Your task to perform on an android device: turn off notifications settings in the gmail app Image 0: 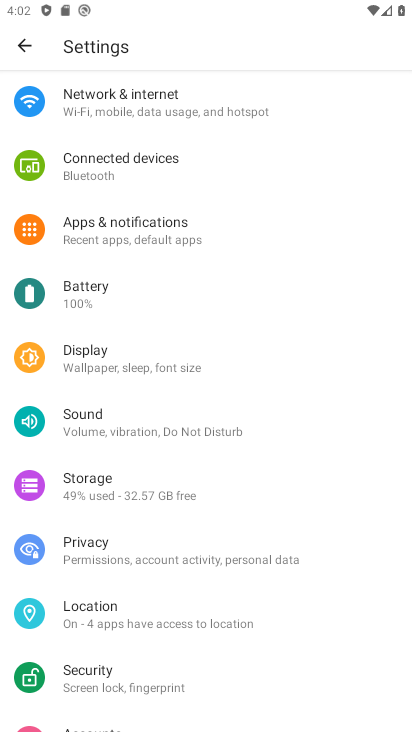
Step 0: click (115, 245)
Your task to perform on an android device: turn off notifications settings in the gmail app Image 1: 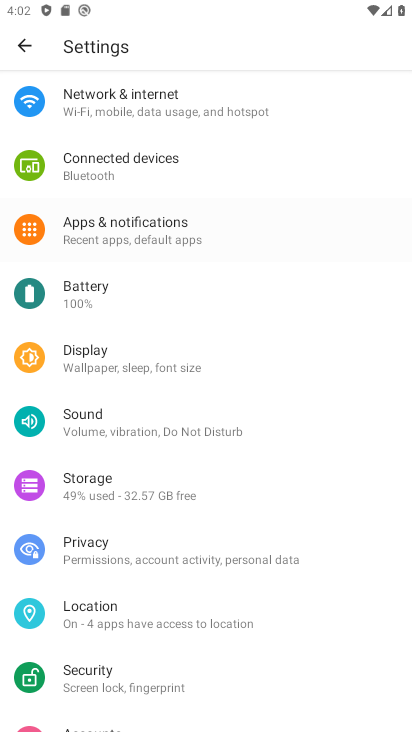
Step 1: click (118, 244)
Your task to perform on an android device: turn off notifications settings in the gmail app Image 2: 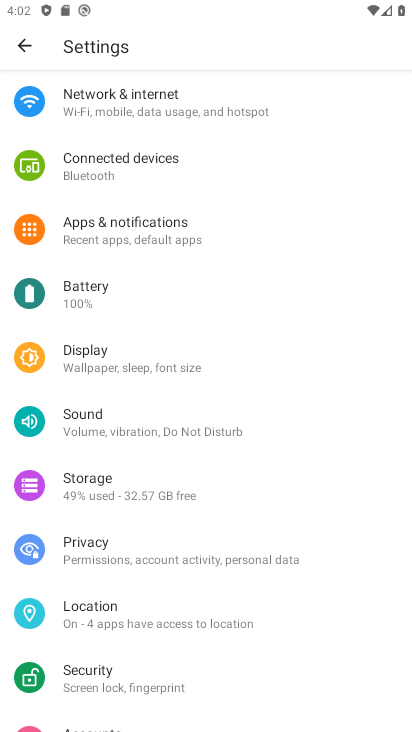
Step 2: click (118, 244)
Your task to perform on an android device: turn off notifications settings in the gmail app Image 3: 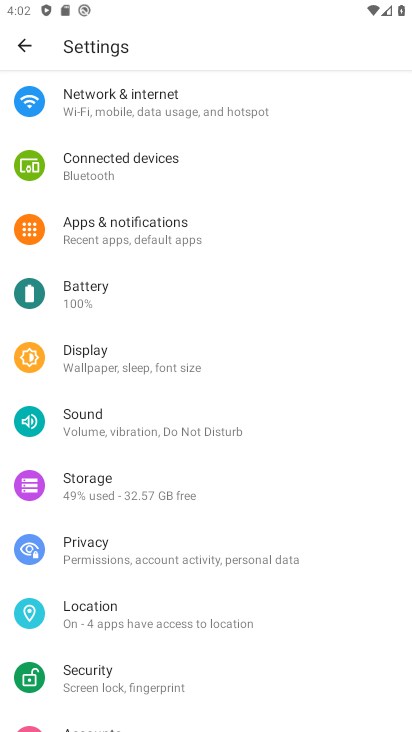
Step 3: click (118, 244)
Your task to perform on an android device: turn off notifications settings in the gmail app Image 4: 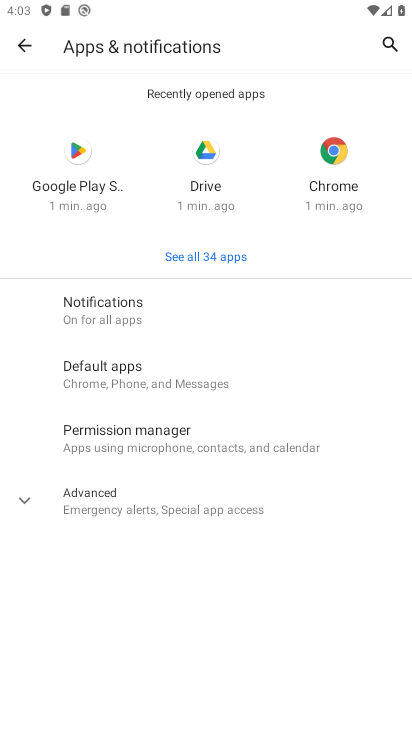
Step 4: click (84, 309)
Your task to perform on an android device: turn off notifications settings in the gmail app Image 5: 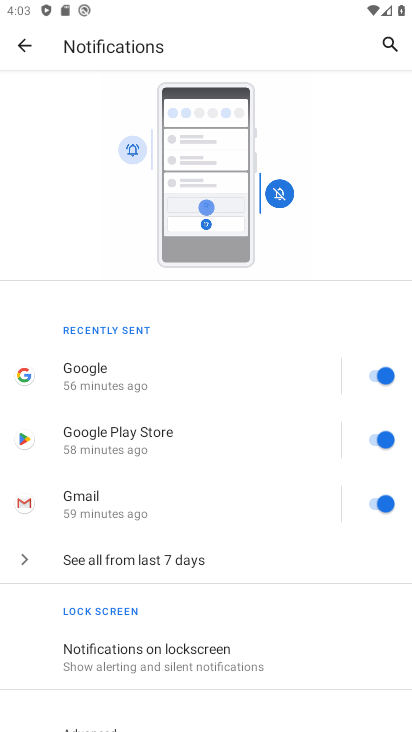
Step 5: drag from (121, 581) to (130, 276)
Your task to perform on an android device: turn off notifications settings in the gmail app Image 6: 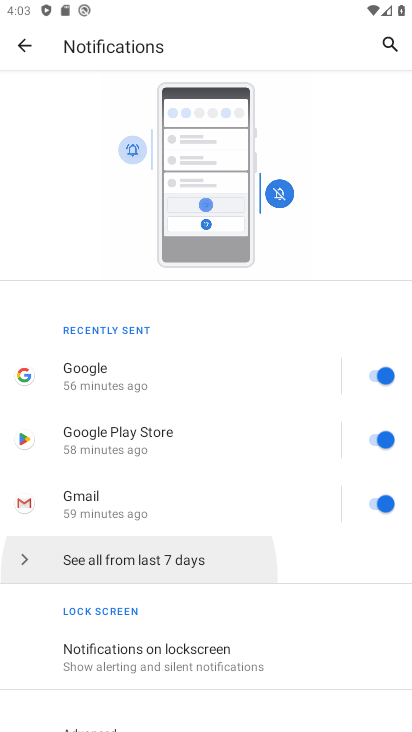
Step 6: drag from (148, 510) to (139, 250)
Your task to perform on an android device: turn off notifications settings in the gmail app Image 7: 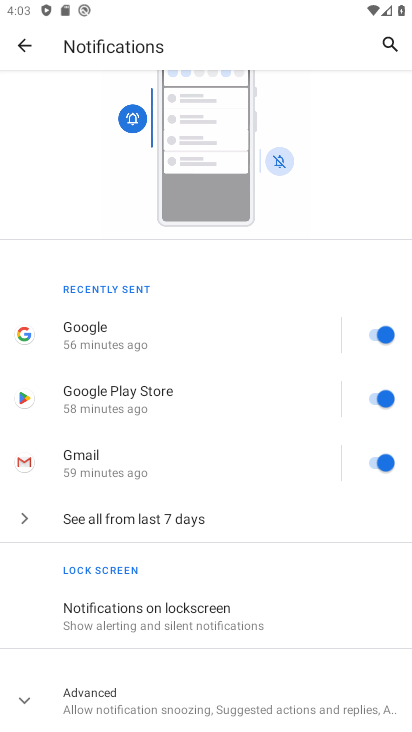
Step 7: drag from (193, 503) to (180, 298)
Your task to perform on an android device: turn off notifications settings in the gmail app Image 8: 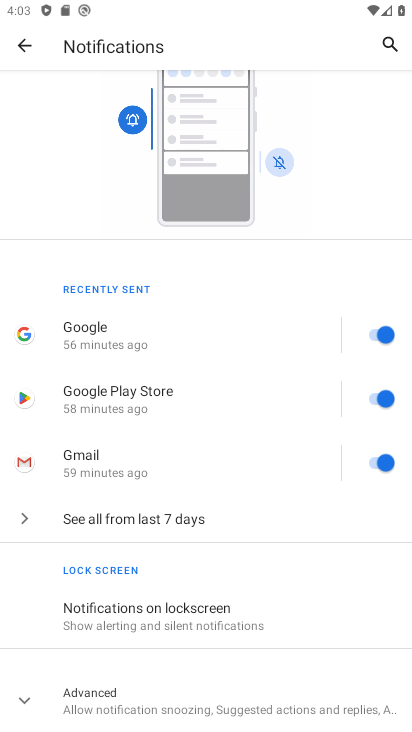
Step 8: click (168, 327)
Your task to perform on an android device: turn off notifications settings in the gmail app Image 9: 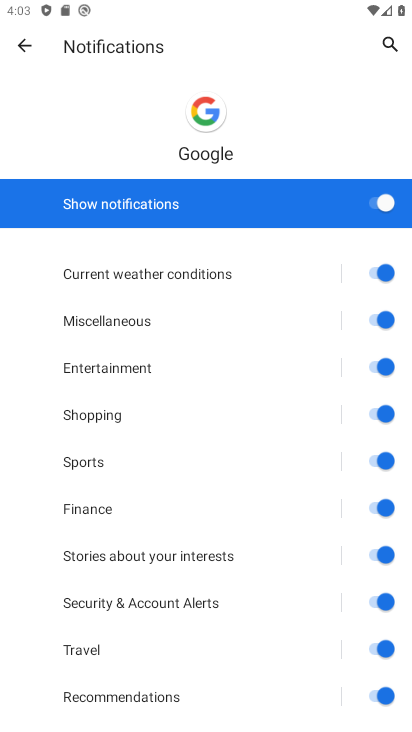
Step 9: click (394, 207)
Your task to perform on an android device: turn off notifications settings in the gmail app Image 10: 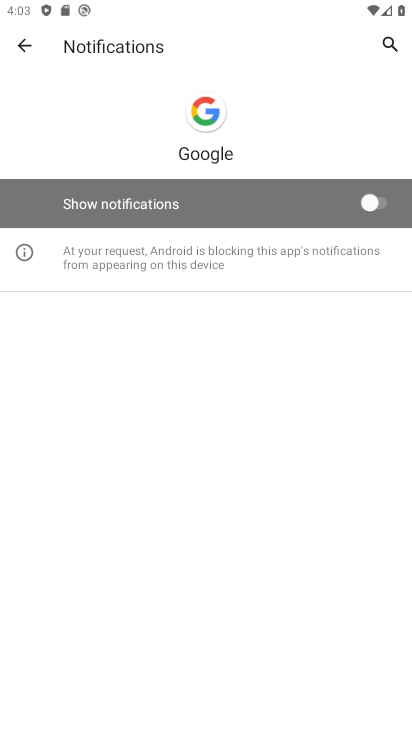
Step 10: click (26, 50)
Your task to perform on an android device: turn off notifications settings in the gmail app Image 11: 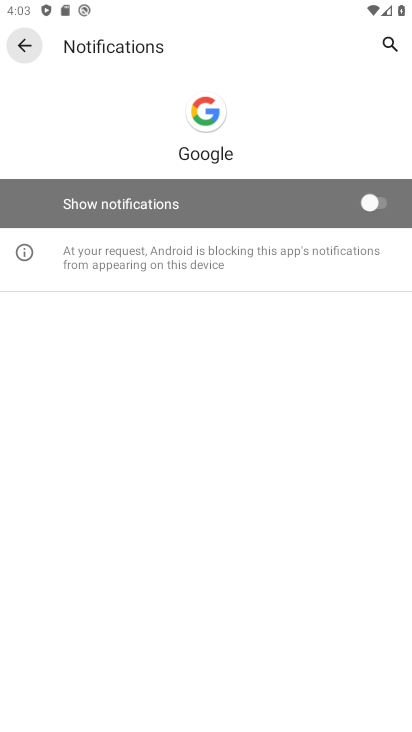
Step 11: click (31, 48)
Your task to perform on an android device: turn off notifications settings in the gmail app Image 12: 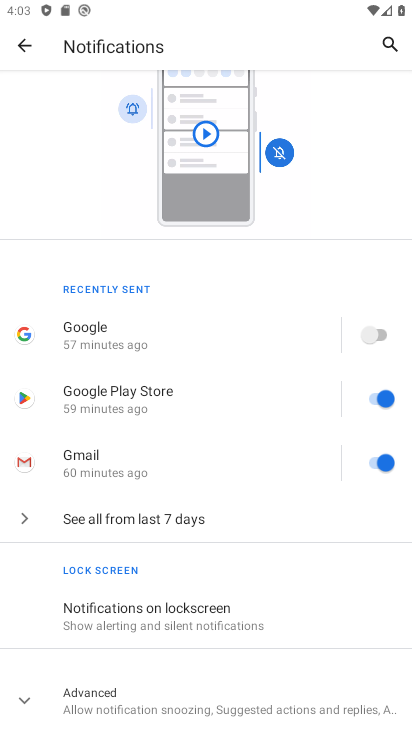
Step 12: click (21, 48)
Your task to perform on an android device: turn off notifications settings in the gmail app Image 13: 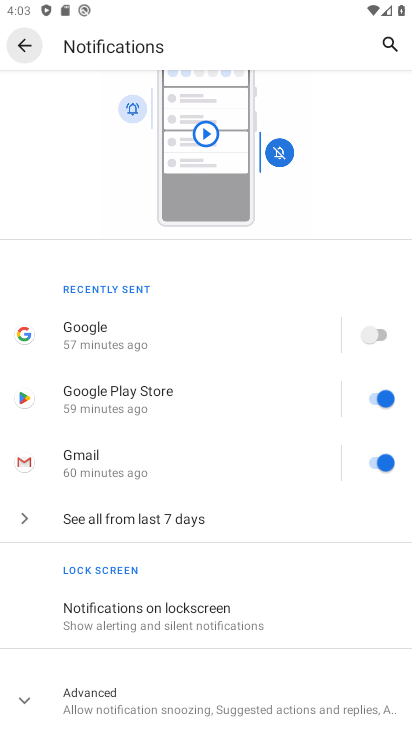
Step 13: click (19, 44)
Your task to perform on an android device: turn off notifications settings in the gmail app Image 14: 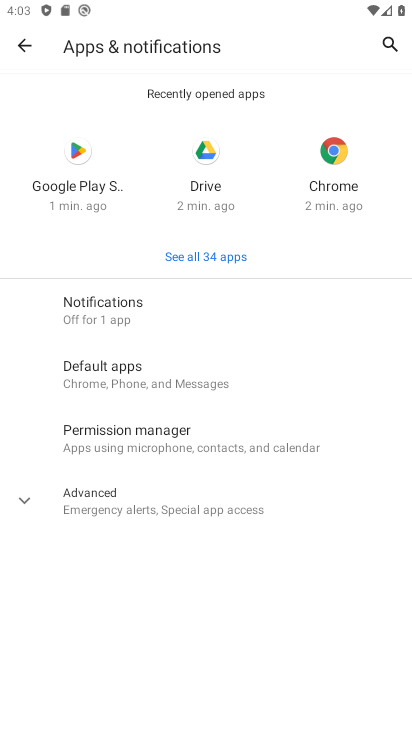
Step 14: click (20, 41)
Your task to perform on an android device: turn off notifications settings in the gmail app Image 15: 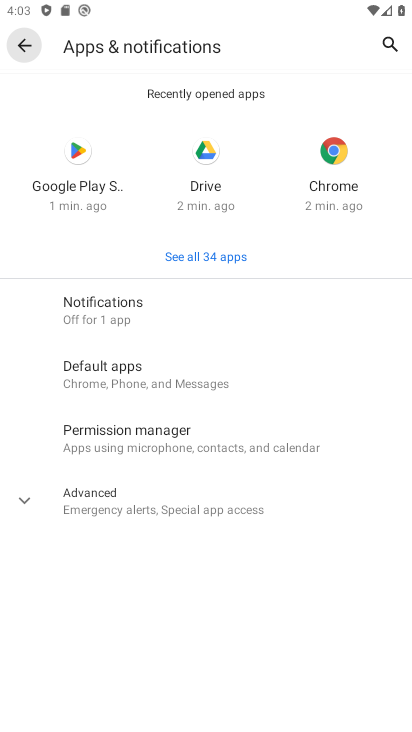
Step 15: click (21, 43)
Your task to perform on an android device: turn off notifications settings in the gmail app Image 16: 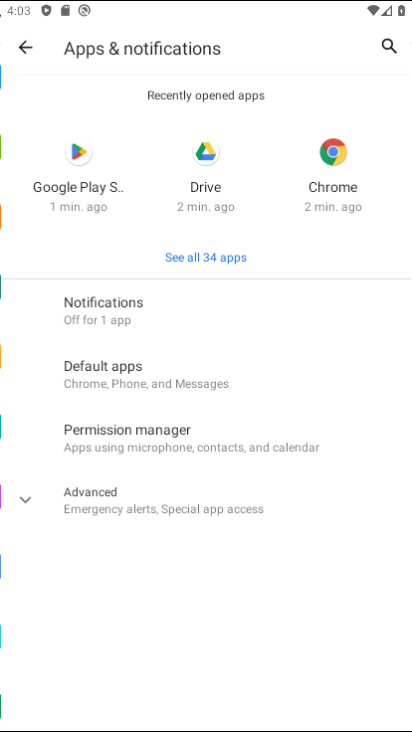
Step 16: click (22, 44)
Your task to perform on an android device: turn off notifications settings in the gmail app Image 17: 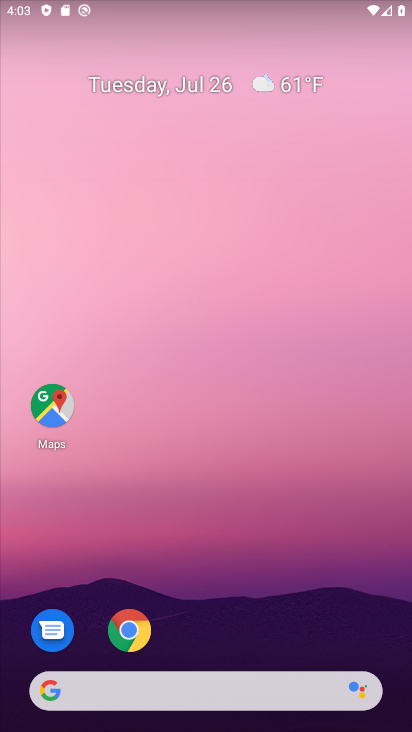
Step 17: drag from (238, 625) to (210, 42)
Your task to perform on an android device: turn off notifications settings in the gmail app Image 18: 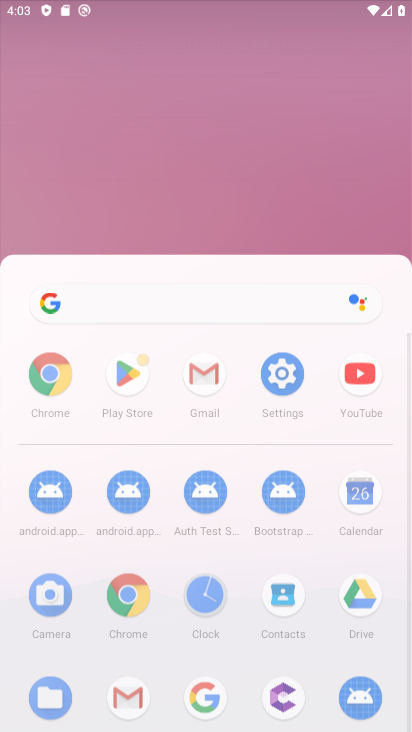
Step 18: drag from (209, 587) to (202, 7)
Your task to perform on an android device: turn off notifications settings in the gmail app Image 19: 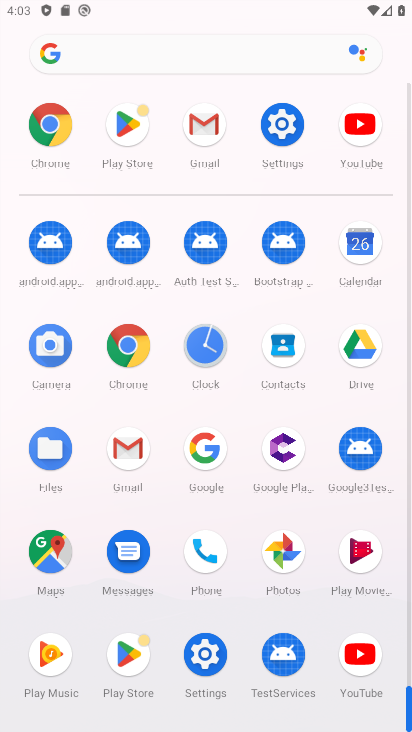
Step 19: drag from (192, 492) to (184, 54)
Your task to perform on an android device: turn off notifications settings in the gmail app Image 20: 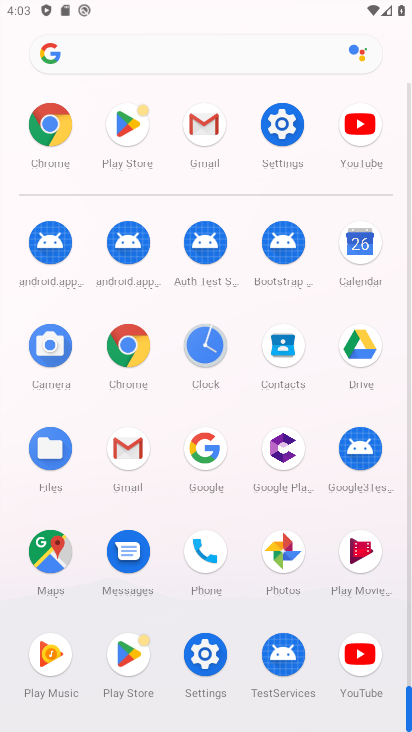
Step 20: click (289, 126)
Your task to perform on an android device: turn off notifications settings in the gmail app Image 21: 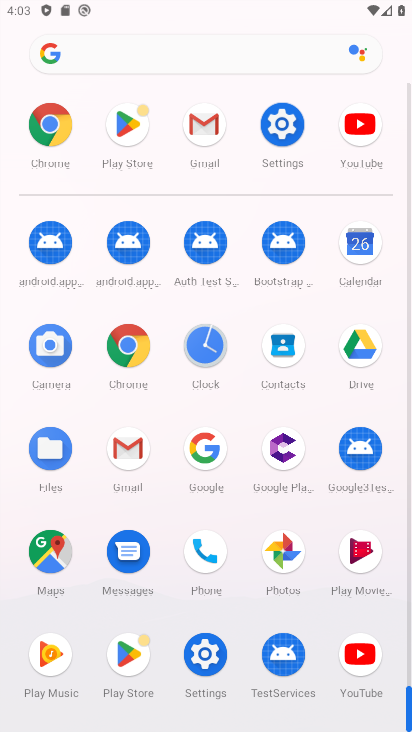
Step 21: click (289, 126)
Your task to perform on an android device: turn off notifications settings in the gmail app Image 22: 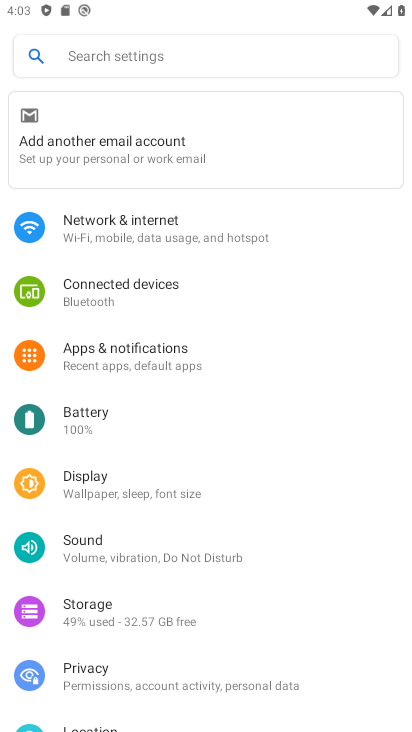
Step 22: click (124, 340)
Your task to perform on an android device: turn off notifications settings in the gmail app Image 23: 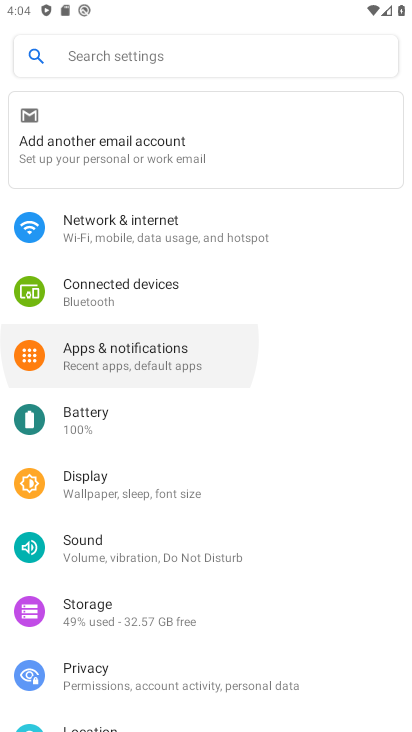
Step 23: click (124, 351)
Your task to perform on an android device: turn off notifications settings in the gmail app Image 24: 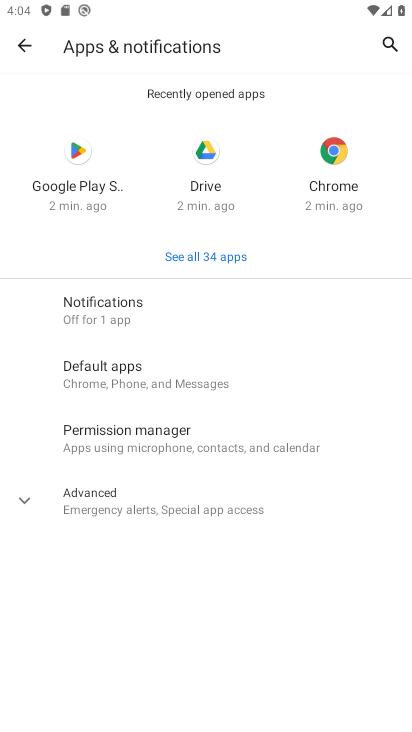
Step 24: click (88, 309)
Your task to perform on an android device: turn off notifications settings in the gmail app Image 25: 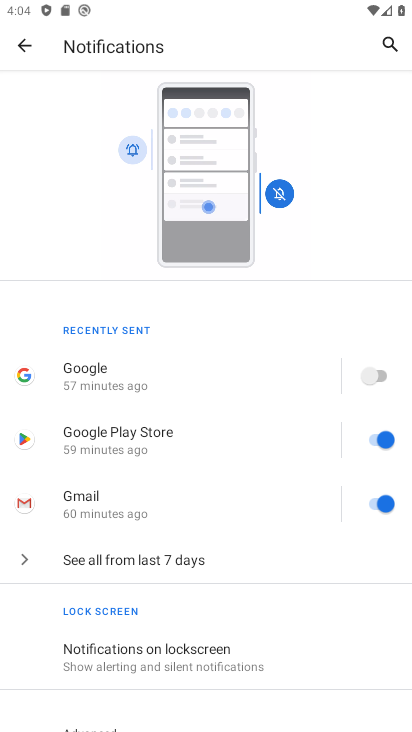
Step 25: drag from (173, 631) to (202, 370)
Your task to perform on an android device: turn off notifications settings in the gmail app Image 26: 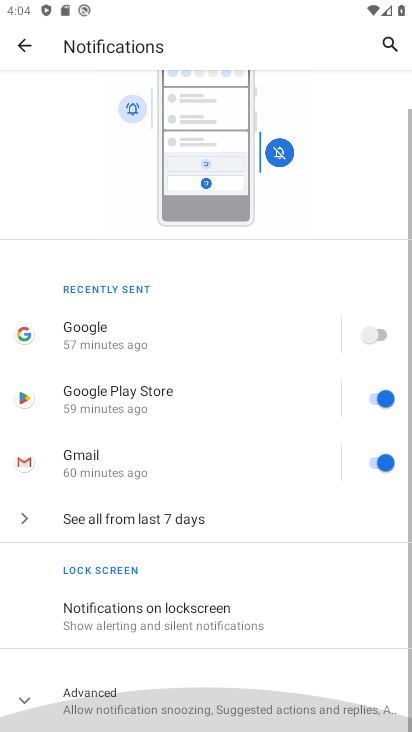
Step 26: drag from (165, 598) to (179, 270)
Your task to perform on an android device: turn off notifications settings in the gmail app Image 27: 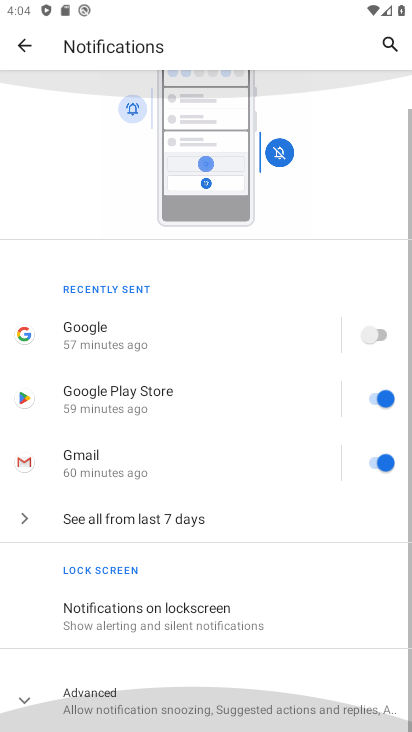
Step 27: drag from (180, 555) to (199, 345)
Your task to perform on an android device: turn off notifications settings in the gmail app Image 28: 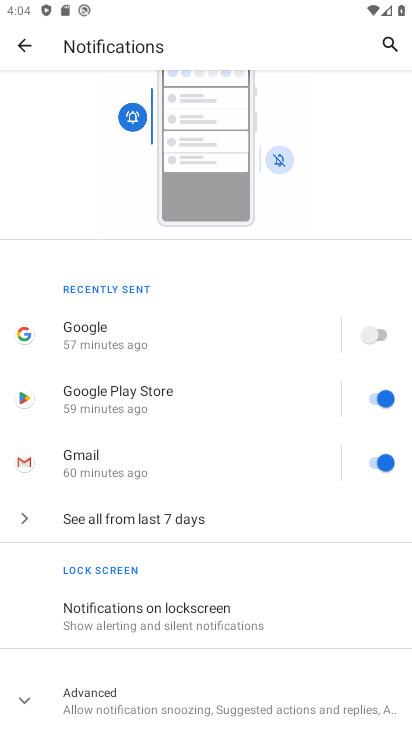
Step 28: click (91, 691)
Your task to perform on an android device: turn off notifications settings in the gmail app Image 29: 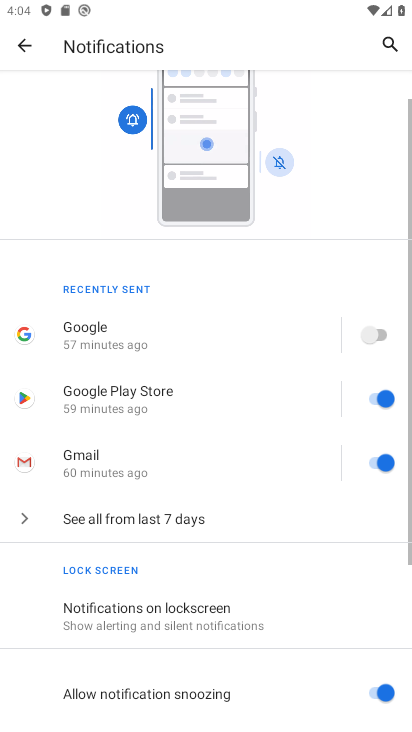
Step 29: drag from (227, 481) to (211, 353)
Your task to perform on an android device: turn off notifications settings in the gmail app Image 30: 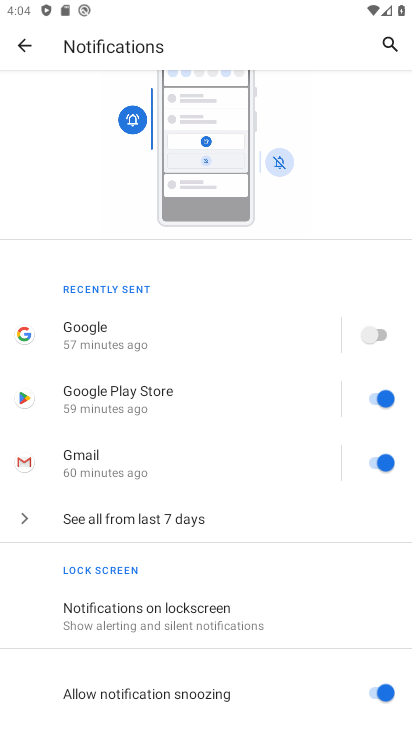
Step 30: drag from (207, 566) to (207, 400)
Your task to perform on an android device: turn off notifications settings in the gmail app Image 31: 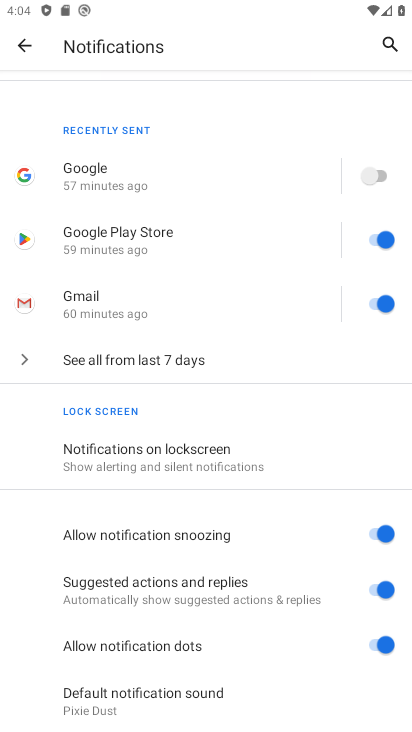
Step 31: drag from (113, 250) to (165, 575)
Your task to perform on an android device: turn off notifications settings in the gmail app Image 32: 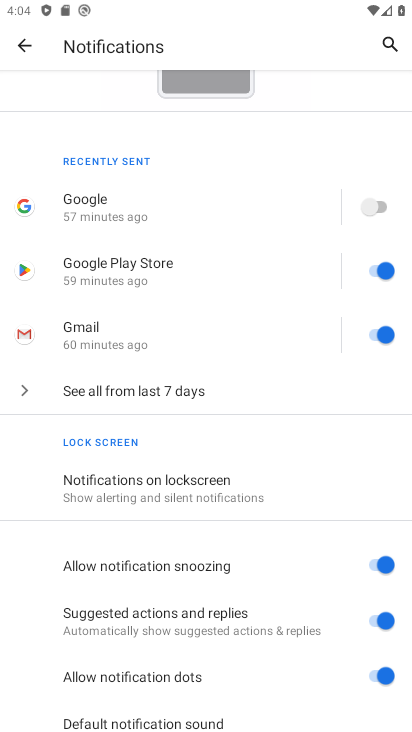
Step 32: click (386, 269)
Your task to perform on an android device: turn off notifications settings in the gmail app Image 33: 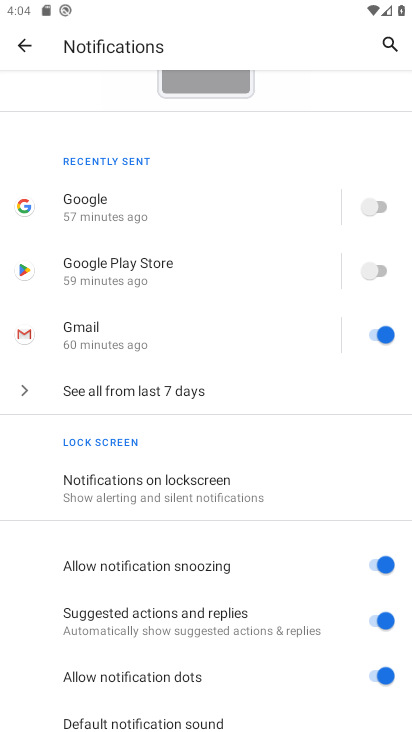
Step 33: click (382, 332)
Your task to perform on an android device: turn off notifications settings in the gmail app Image 34: 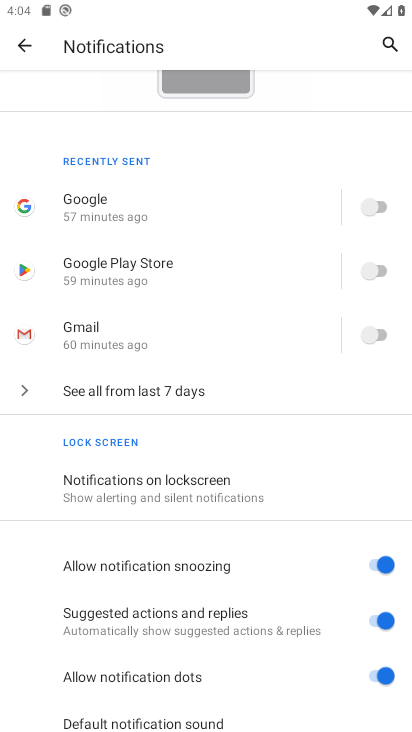
Step 34: task complete